Your task to perform on an android device: turn notification dots on Image 0: 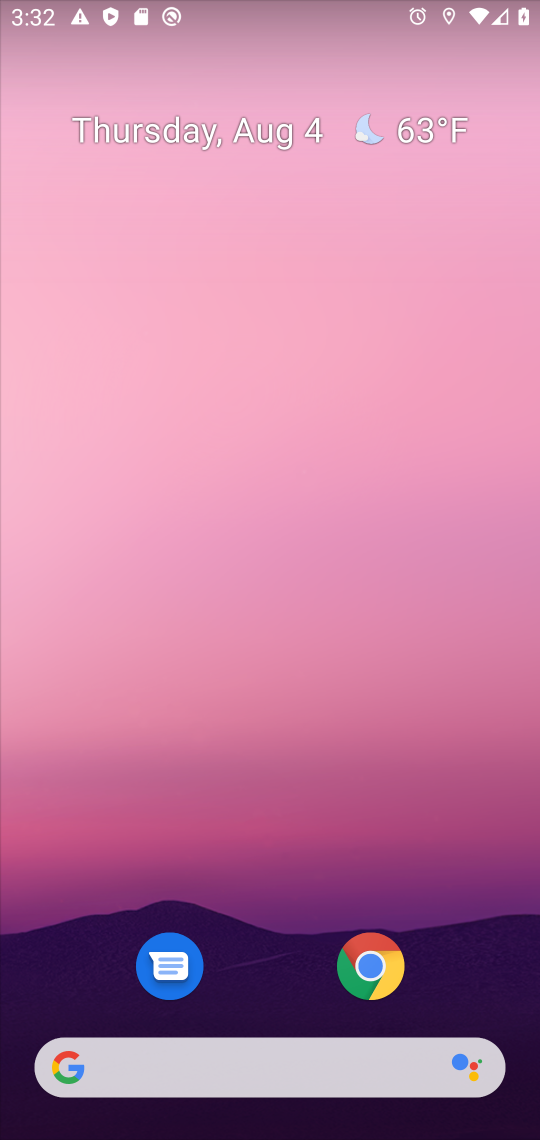
Step 0: drag from (258, 998) to (289, 269)
Your task to perform on an android device: turn notification dots on Image 1: 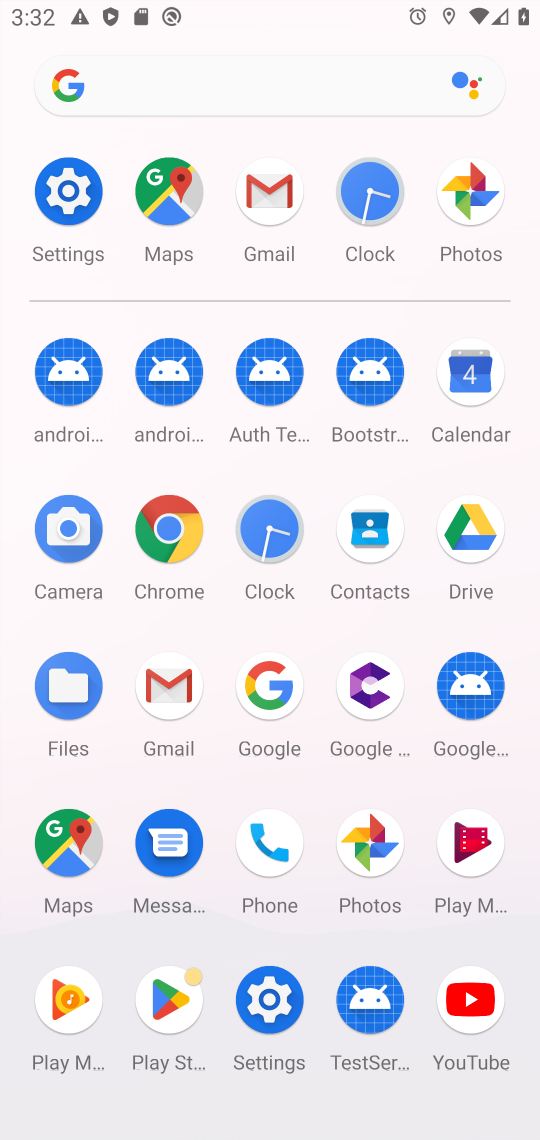
Step 1: click (76, 189)
Your task to perform on an android device: turn notification dots on Image 2: 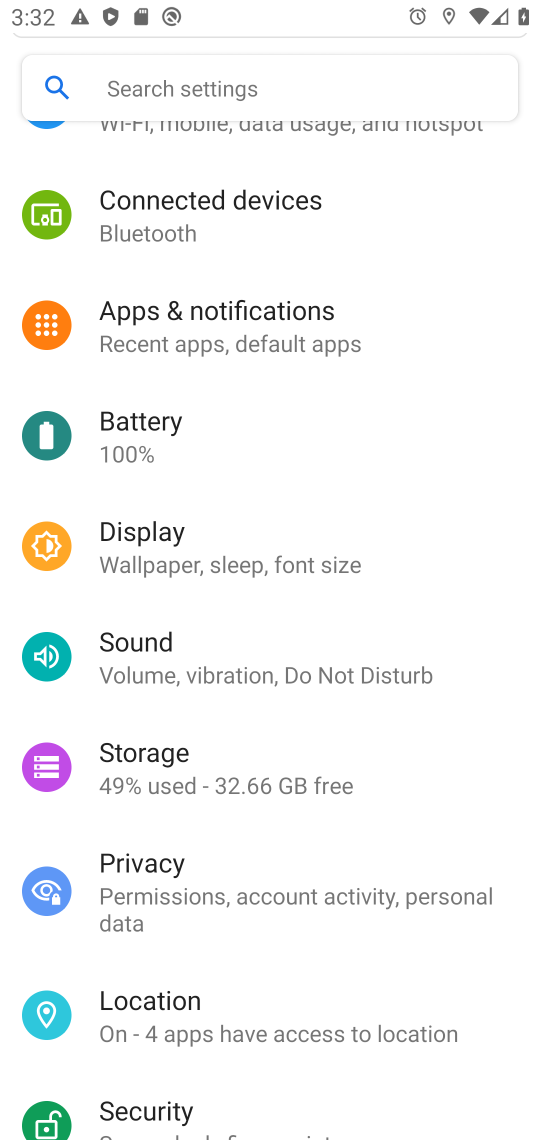
Step 2: click (201, 347)
Your task to perform on an android device: turn notification dots on Image 3: 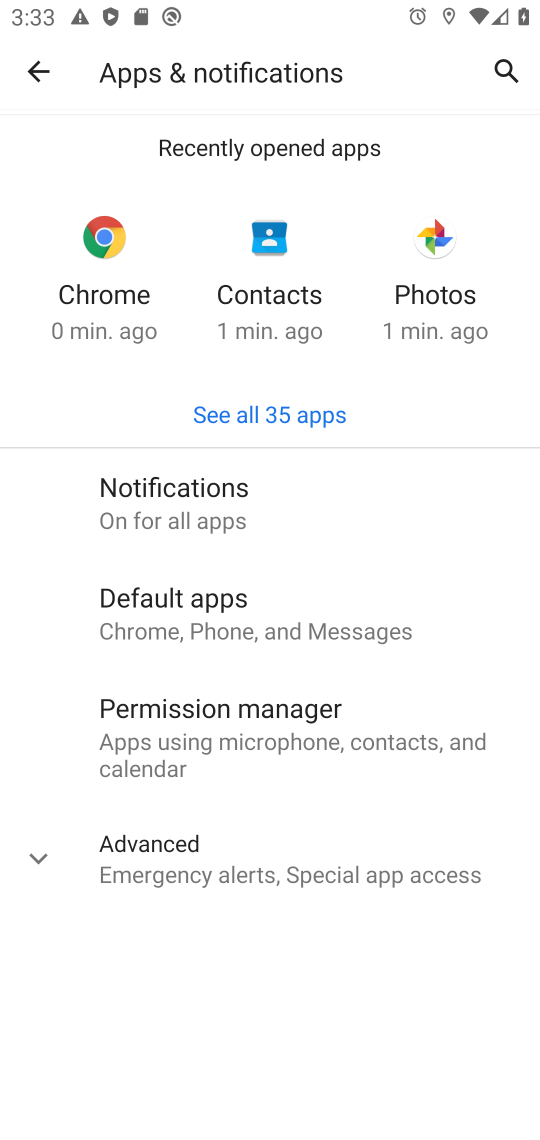
Step 3: click (152, 515)
Your task to perform on an android device: turn notification dots on Image 4: 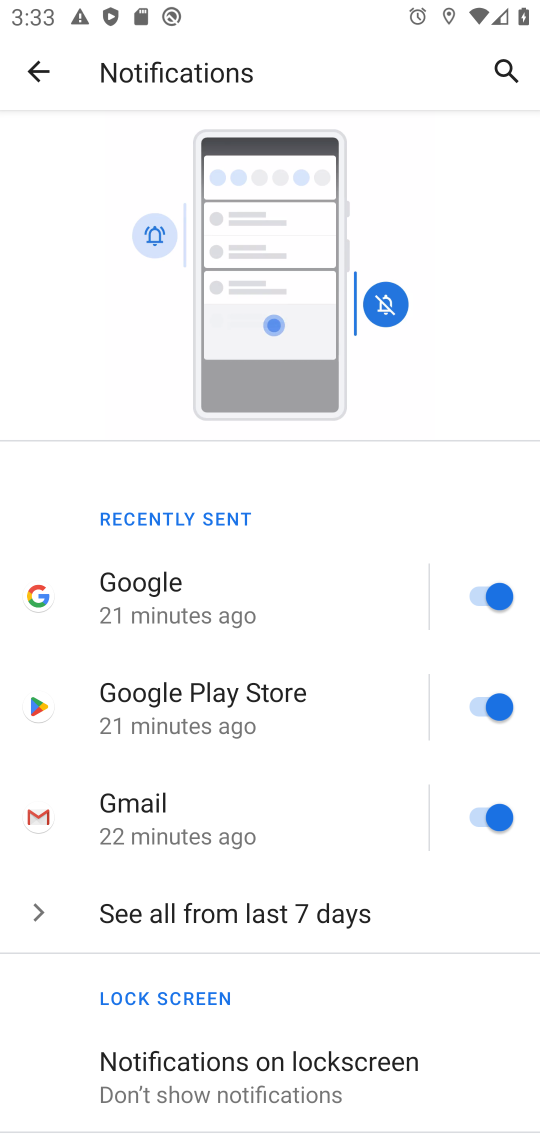
Step 4: drag from (351, 946) to (387, 132)
Your task to perform on an android device: turn notification dots on Image 5: 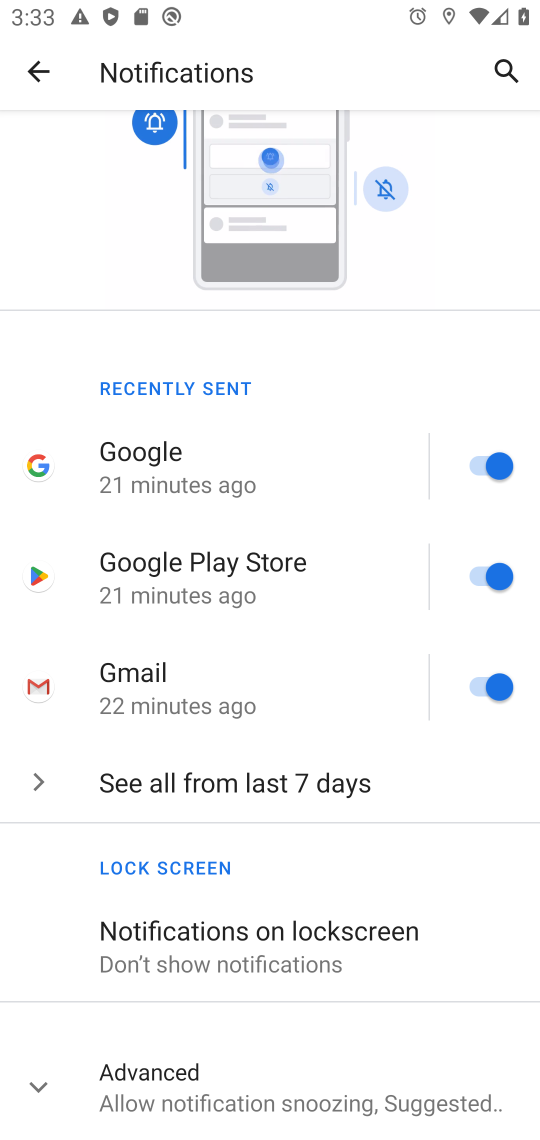
Step 5: click (128, 1087)
Your task to perform on an android device: turn notification dots on Image 6: 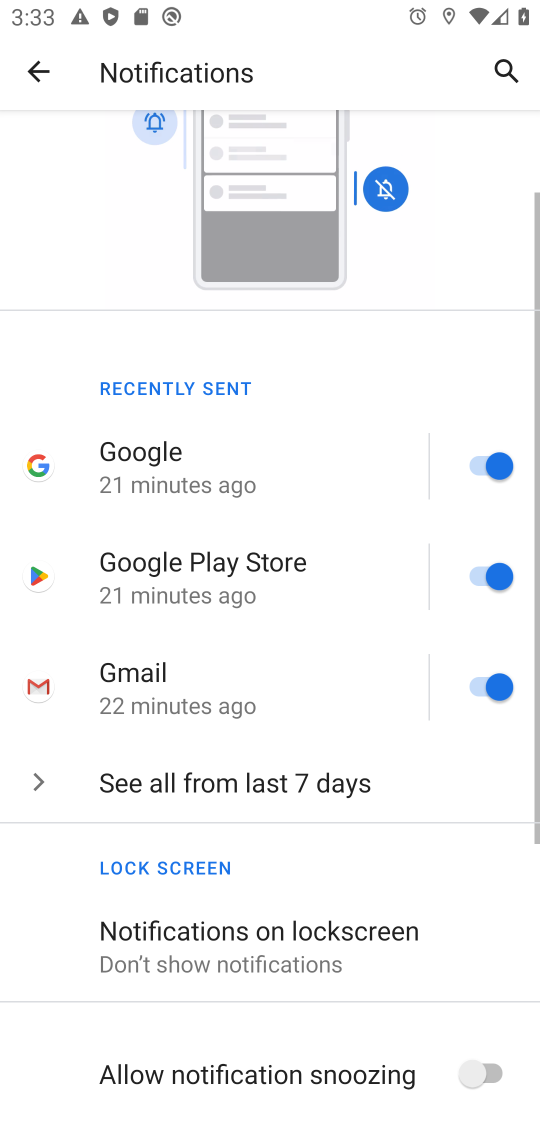
Step 6: task complete